Your task to perform on an android device: Open Google Chrome and click the shortcut for Amazon.com Image 0: 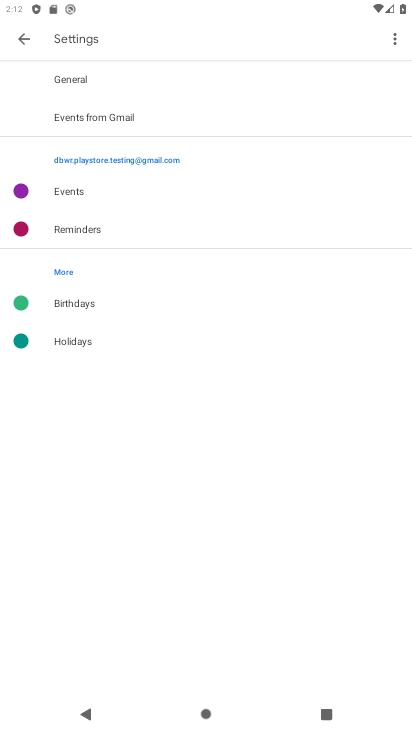
Step 0: press home button
Your task to perform on an android device: Open Google Chrome and click the shortcut for Amazon.com Image 1: 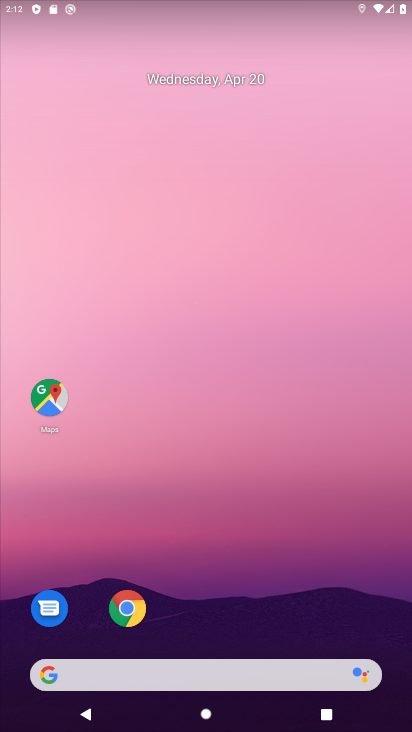
Step 1: drag from (344, 594) to (346, 274)
Your task to perform on an android device: Open Google Chrome and click the shortcut for Amazon.com Image 2: 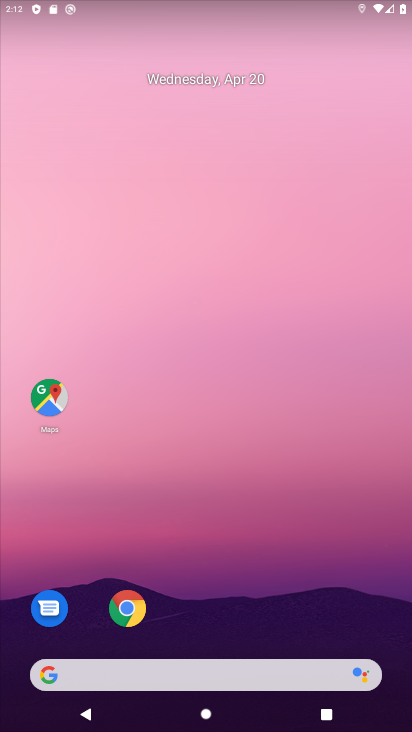
Step 2: drag from (334, 560) to (331, 157)
Your task to perform on an android device: Open Google Chrome and click the shortcut for Amazon.com Image 3: 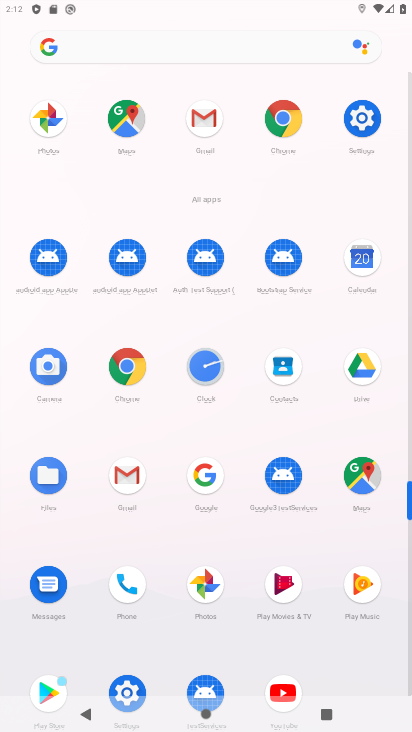
Step 3: click (138, 377)
Your task to perform on an android device: Open Google Chrome and click the shortcut for Amazon.com Image 4: 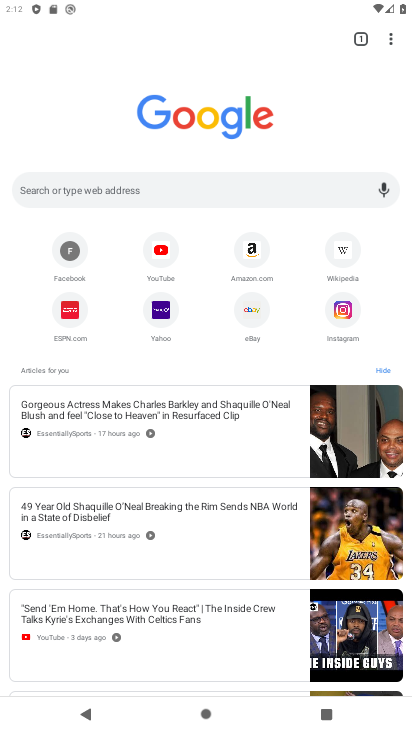
Step 4: click (258, 255)
Your task to perform on an android device: Open Google Chrome and click the shortcut for Amazon.com Image 5: 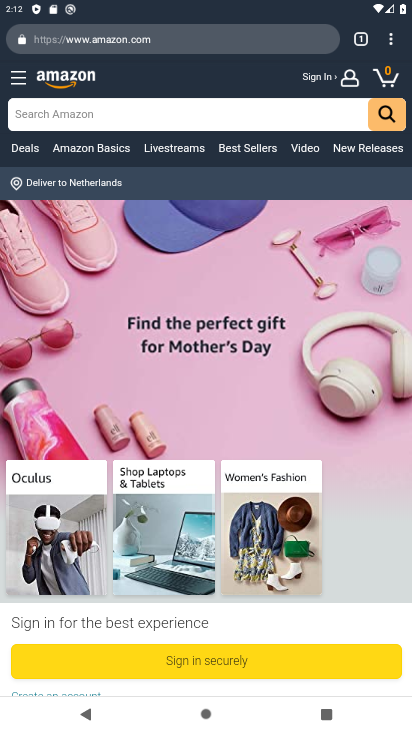
Step 5: task complete